Your task to perform on an android device: Go to battery settings Image 0: 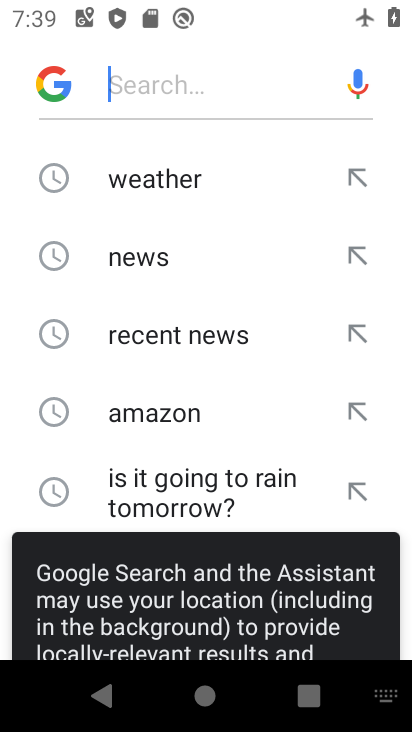
Step 0: press home button
Your task to perform on an android device: Go to battery settings Image 1: 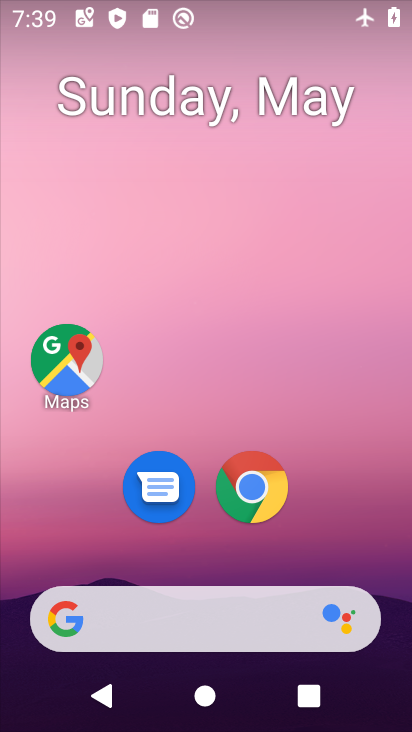
Step 1: drag from (387, 542) to (387, 156)
Your task to perform on an android device: Go to battery settings Image 2: 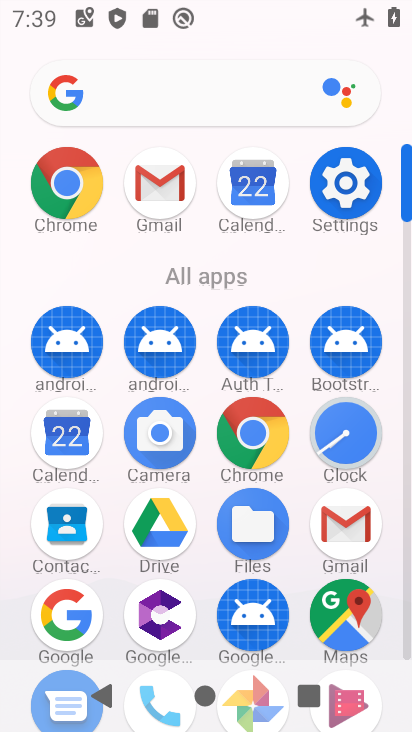
Step 2: click (349, 207)
Your task to perform on an android device: Go to battery settings Image 3: 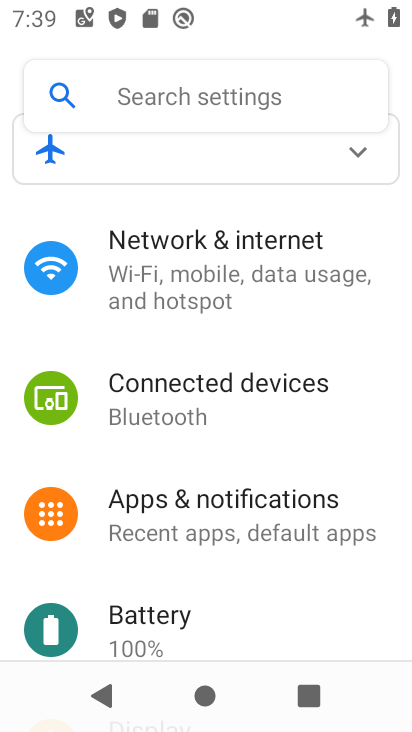
Step 3: drag from (364, 621) to (362, 484)
Your task to perform on an android device: Go to battery settings Image 4: 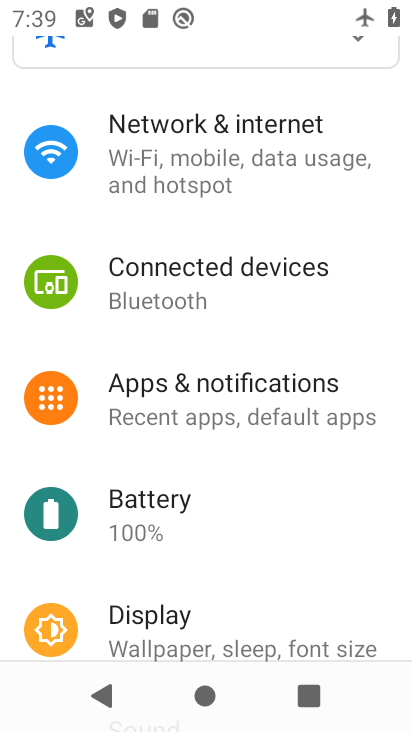
Step 4: drag from (361, 614) to (356, 459)
Your task to perform on an android device: Go to battery settings Image 5: 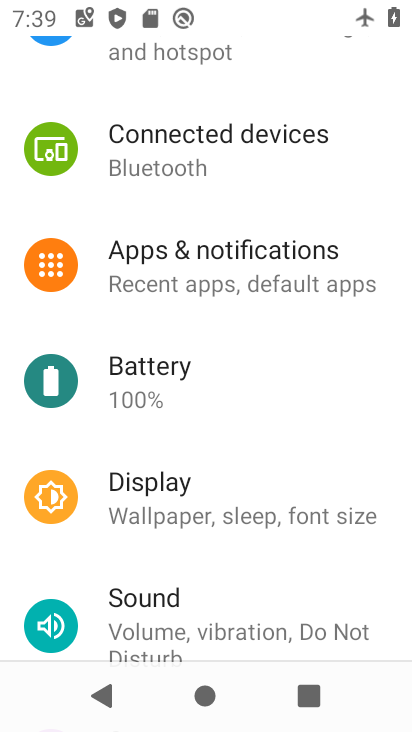
Step 5: drag from (343, 640) to (333, 503)
Your task to perform on an android device: Go to battery settings Image 6: 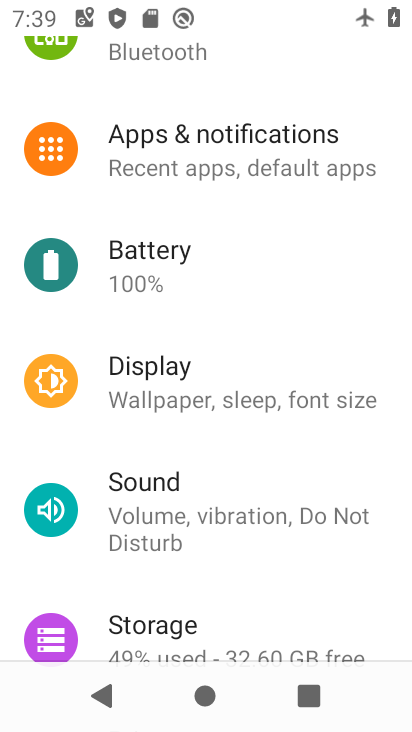
Step 6: drag from (395, 564) to (386, 485)
Your task to perform on an android device: Go to battery settings Image 7: 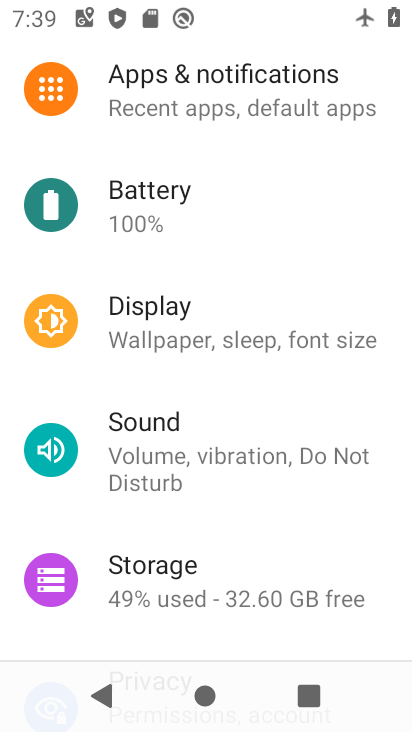
Step 7: drag from (383, 580) to (380, 478)
Your task to perform on an android device: Go to battery settings Image 8: 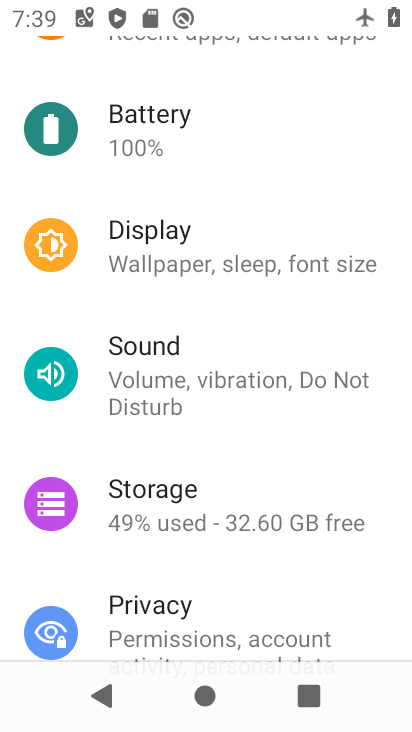
Step 8: drag from (375, 607) to (369, 512)
Your task to perform on an android device: Go to battery settings Image 9: 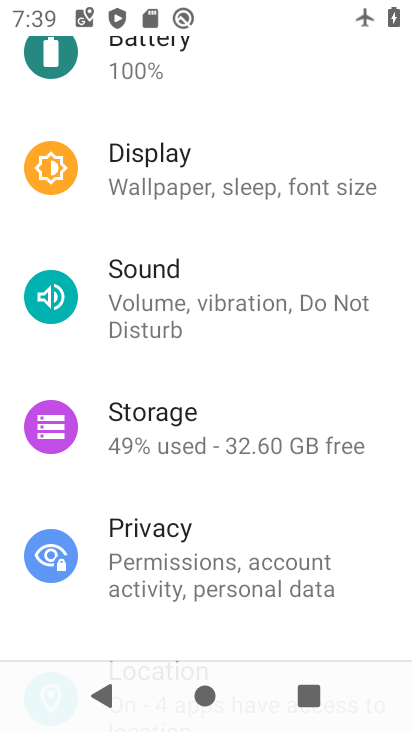
Step 9: drag from (378, 609) to (382, 538)
Your task to perform on an android device: Go to battery settings Image 10: 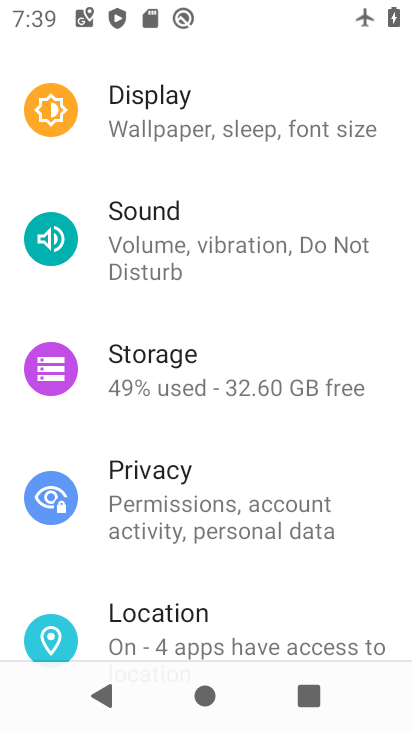
Step 10: drag from (376, 588) to (381, 505)
Your task to perform on an android device: Go to battery settings Image 11: 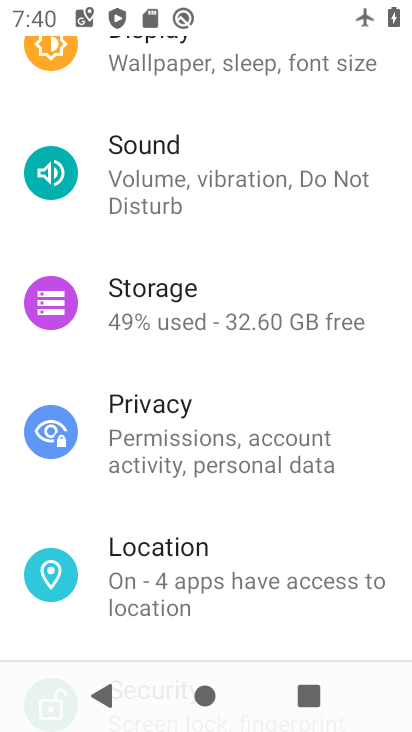
Step 11: drag from (376, 615) to (376, 531)
Your task to perform on an android device: Go to battery settings Image 12: 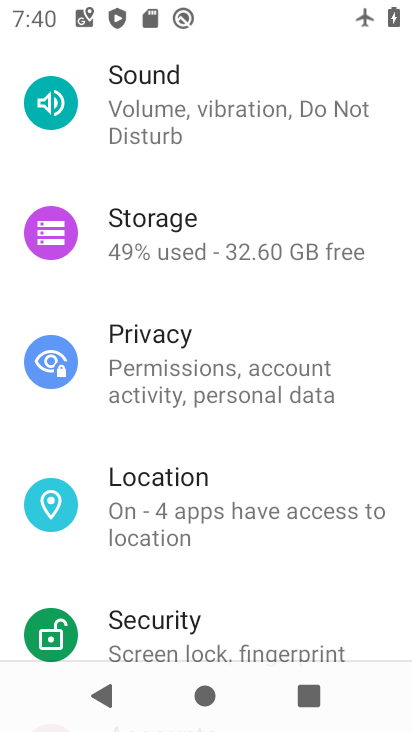
Step 12: drag from (368, 608) to (368, 527)
Your task to perform on an android device: Go to battery settings Image 13: 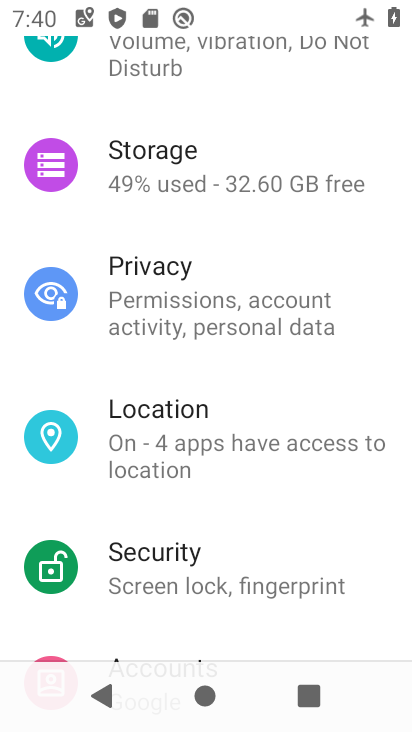
Step 13: drag from (367, 624) to (367, 539)
Your task to perform on an android device: Go to battery settings Image 14: 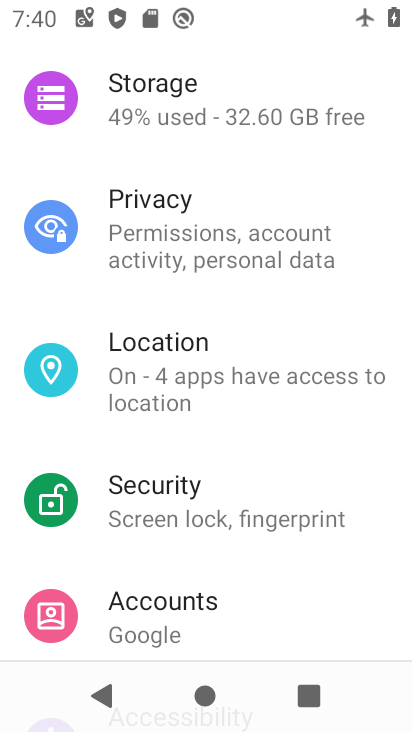
Step 14: drag from (367, 612) to (367, 532)
Your task to perform on an android device: Go to battery settings Image 15: 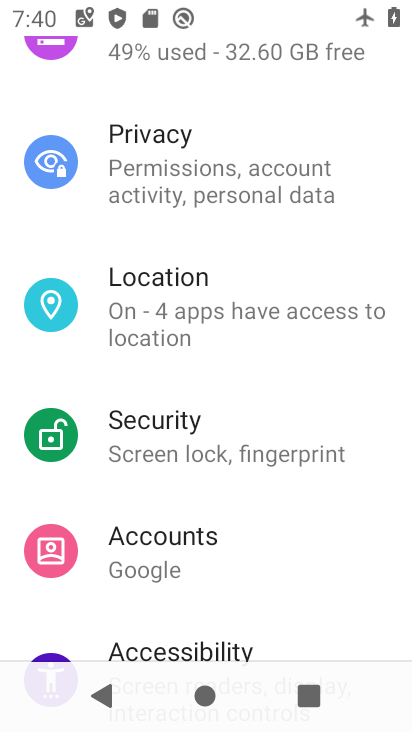
Step 15: drag from (369, 614) to (367, 516)
Your task to perform on an android device: Go to battery settings Image 16: 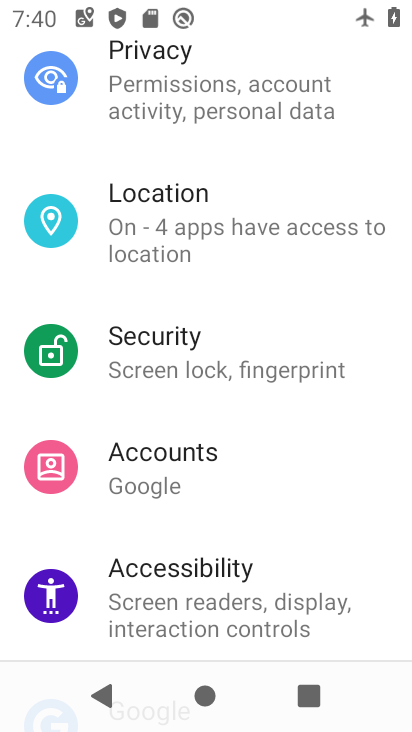
Step 16: drag from (368, 624) to (377, 527)
Your task to perform on an android device: Go to battery settings Image 17: 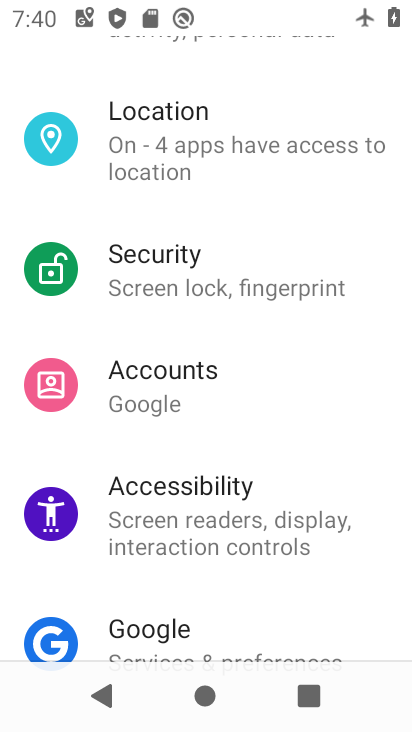
Step 17: drag from (373, 635) to (381, 520)
Your task to perform on an android device: Go to battery settings Image 18: 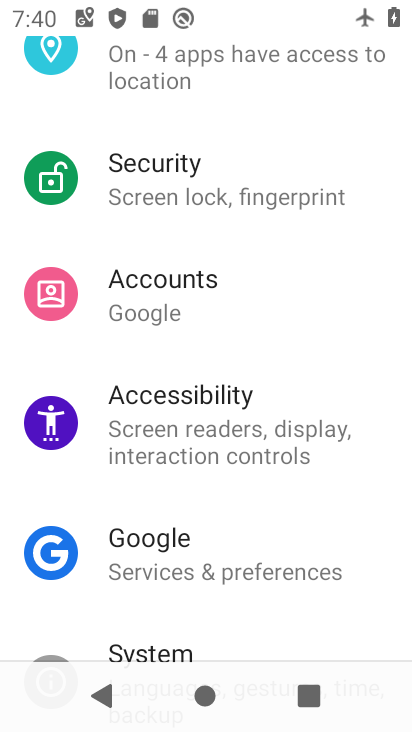
Step 18: drag from (366, 616) to (366, 511)
Your task to perform on an android device: Go to battery settings Image 19: 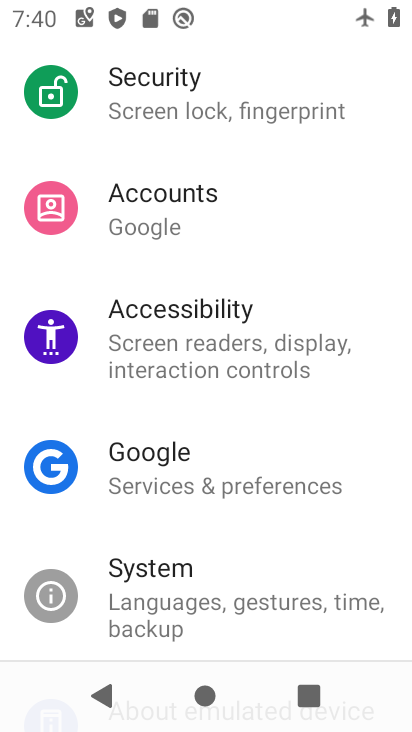
Step 19: drag from (373, 624) to (366, 450)
Your task to perform on an android device: Go to battery settings Image 20: 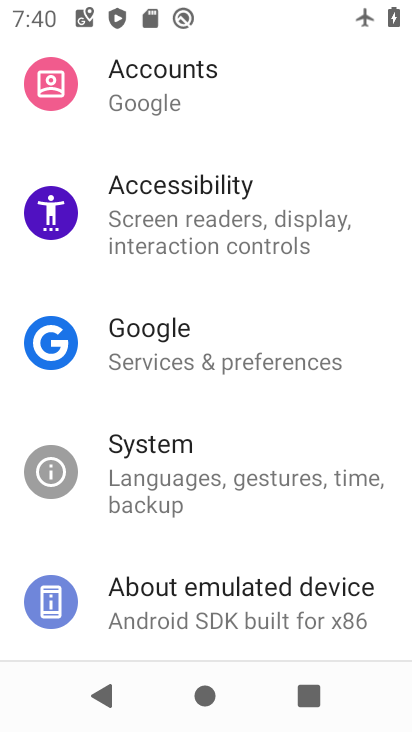
Step 20: drag from (360, 416) to (355, 511)
Your task to perform on an android device: Go to battery settings Image 21: 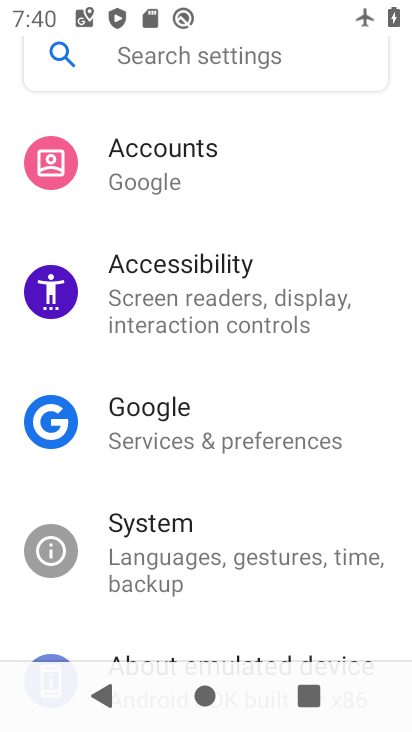
Step 21: drag from (372, 401) to (371, 493)
Your task to perform on an android device: Go to battery settings Image 22: 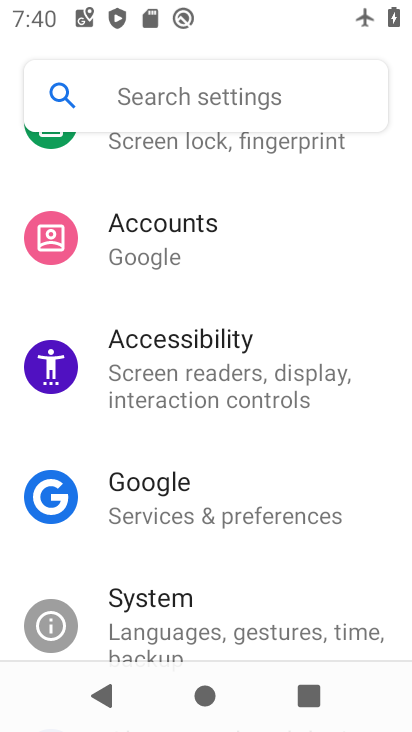
Step 22: drag from (371, 385) to (371, 478)
Your task to perform on an android device: Go to battery settings Image 23: 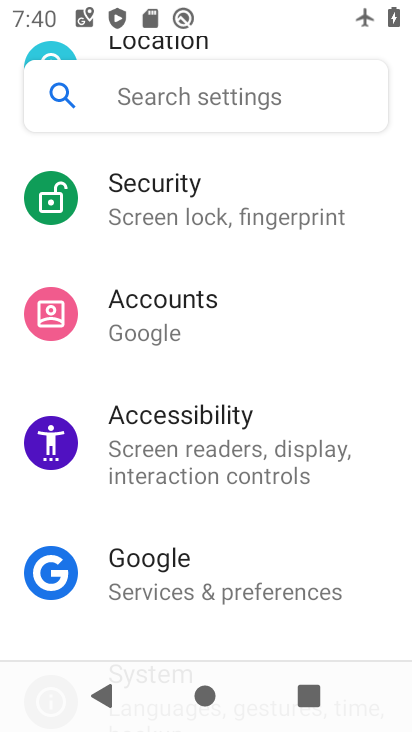
Step 23: drag from (368, 390) to (368, 486)
Your task to perform on an android device: Go to battery settings Image 24: 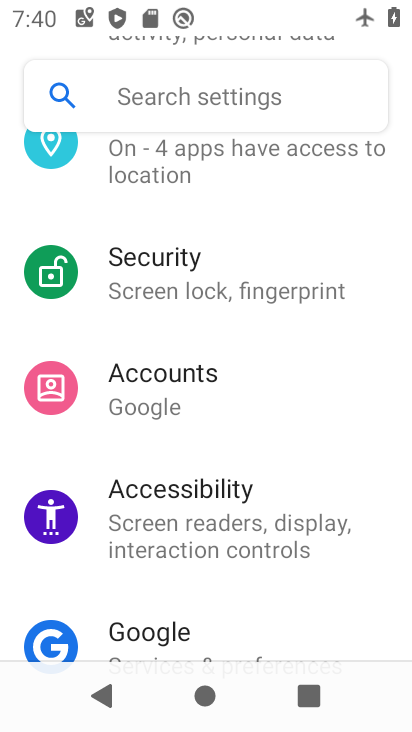
Step 24: drag from (373, 405) to (374, 468)
Your task to perform on an android device: Go to battery settings Image 25: 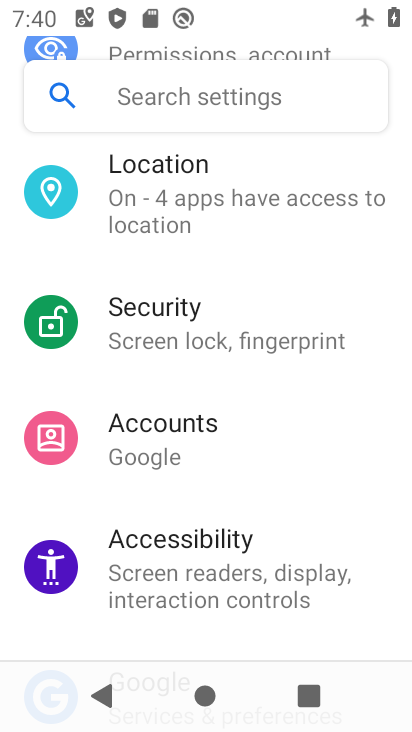
Step 25: drag from (388, 372) to (389, 470)
Your task to perform on an android device: Go to battery settings Image 26: 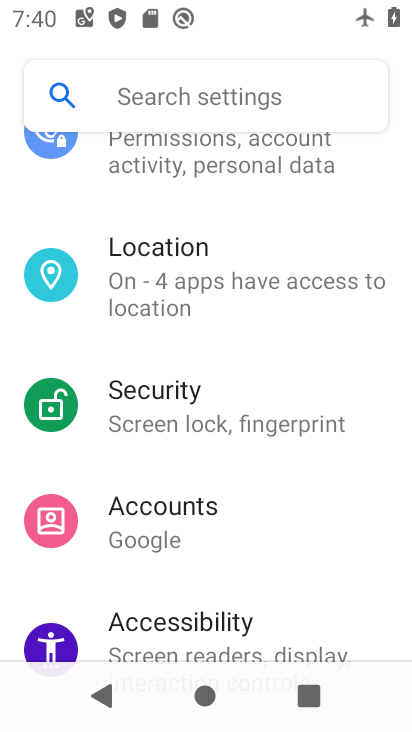
Step 26: drag from (380, 389) to (365, 498)
Your task to perform on an android device: Go to battery settings Image 27: 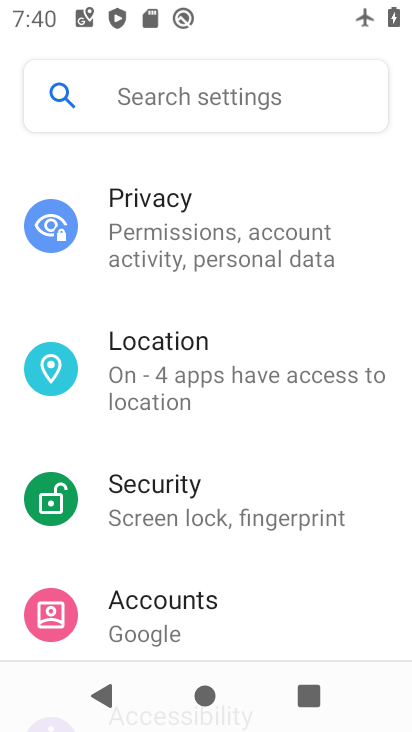
Step 27: drag from (353, 363) to (356, 495)
Your task to perform on an android device: Go to battery settings Image 28: 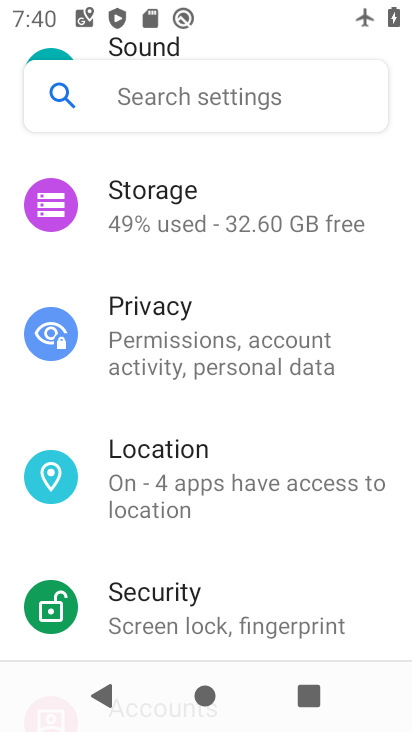
Step 28: drag from (360, 335) to (348, 527)
Your task to perform on an android device: Go to battery settings Image 29: 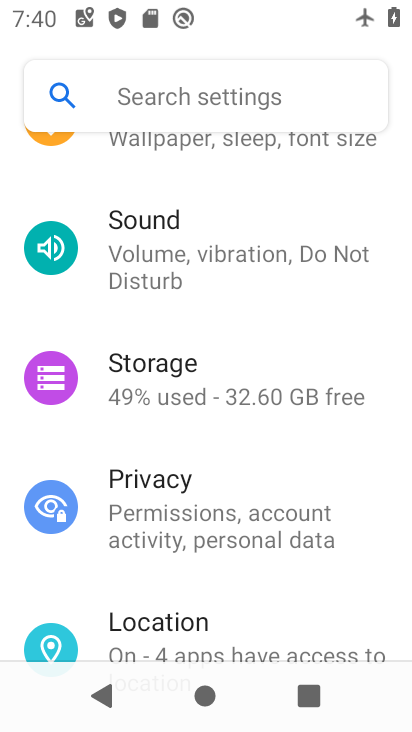
Step 29: drag from (359, 347) to (356, 501)
Your task to perform on an android device: Go to battery settings Image 30: 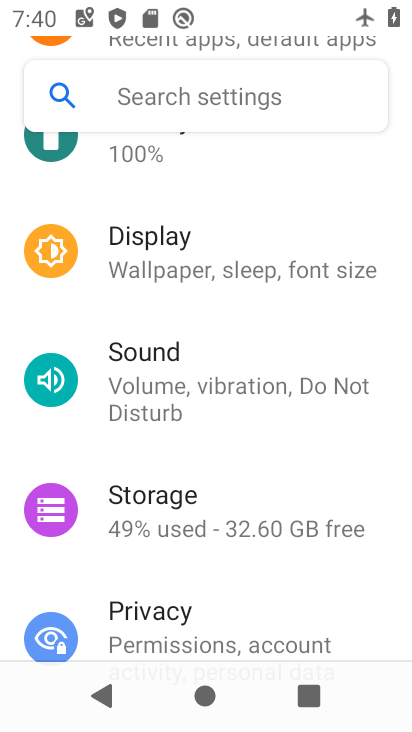
Step 30: drag from (347, 329) to (352, 492)
Your task to perform on an android device: Go to battery settings Image 31: 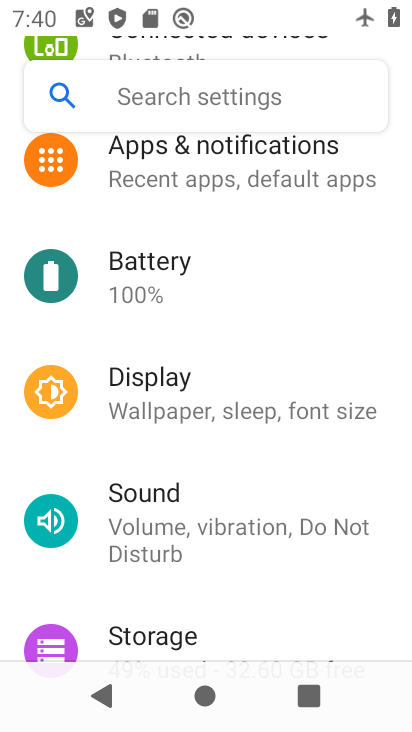
Step 31: click (147, 305)
Your task to perform on an android device: Go to battery settings Image 32: 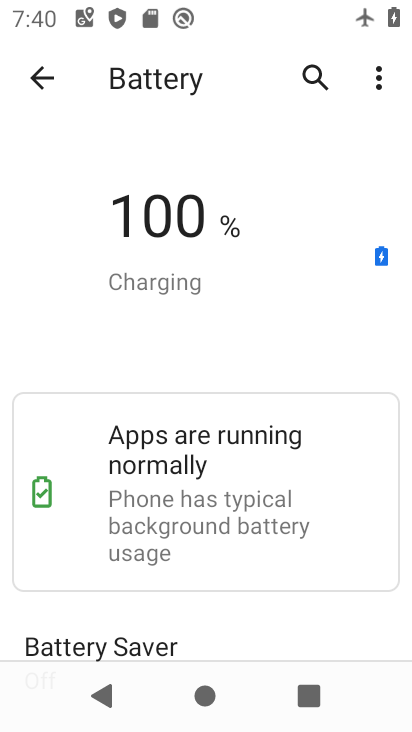
Step 32: task complete